Your task to perform on an android device: change the clock style Image 0: 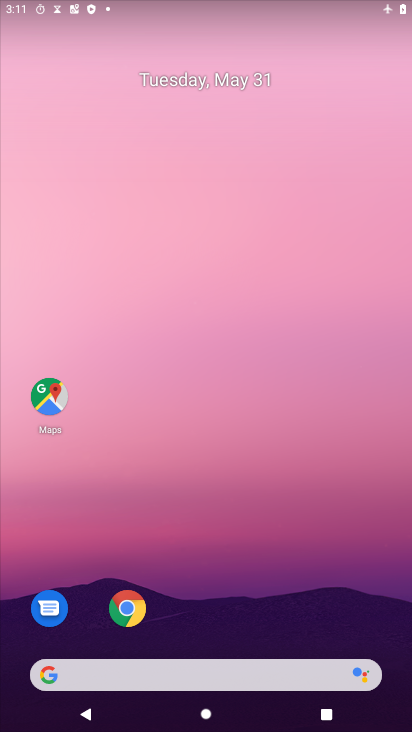
Step 0: drag from (185, 610) to (305, 152)
Your task to perform on an android device: change the clock style Image 1: 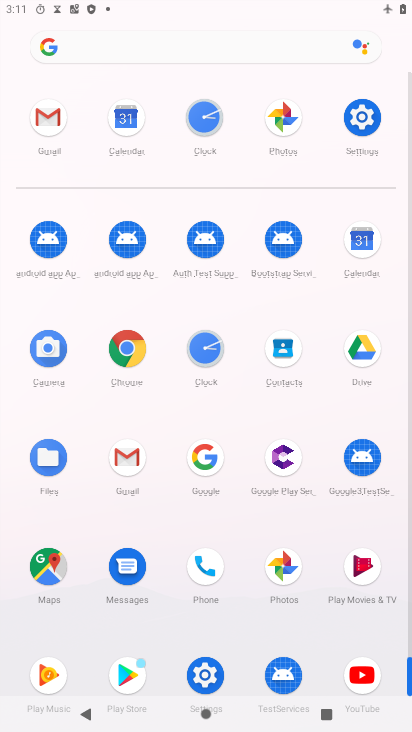
Step 1: click (205, 354)
Your task to perform on an android device: change the clock style Image 2: 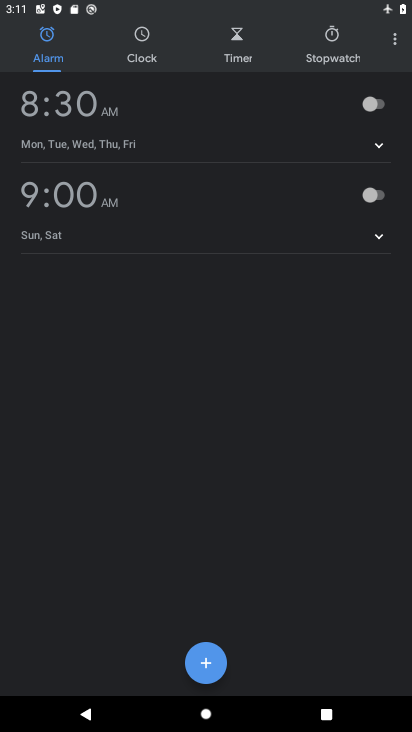
Step 2: click (390, 49)
Your task to perform on an android device: change the clock style Image 3: 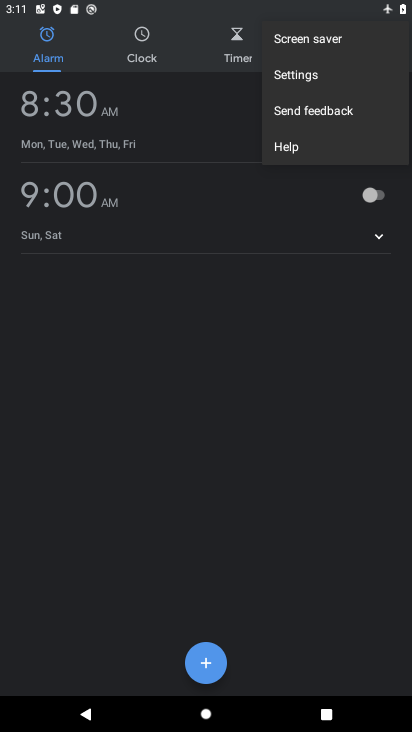
Step 3: click (321, 82)
Your task to perform on an android device: change the clock style Image 4: 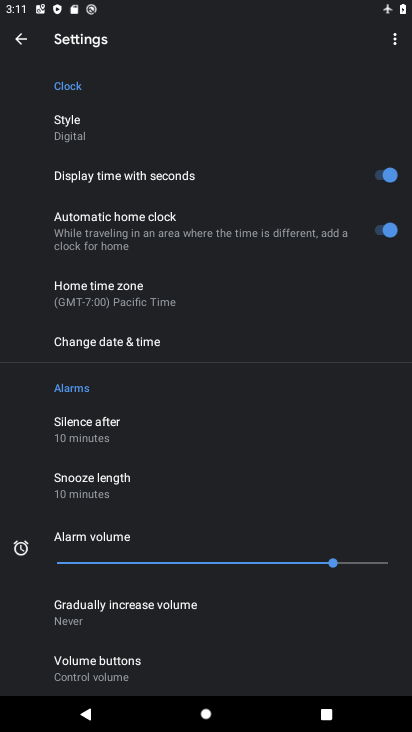
Step 4: click (311, 85)
Your task to perform on an android device: change the clock style Image 5: 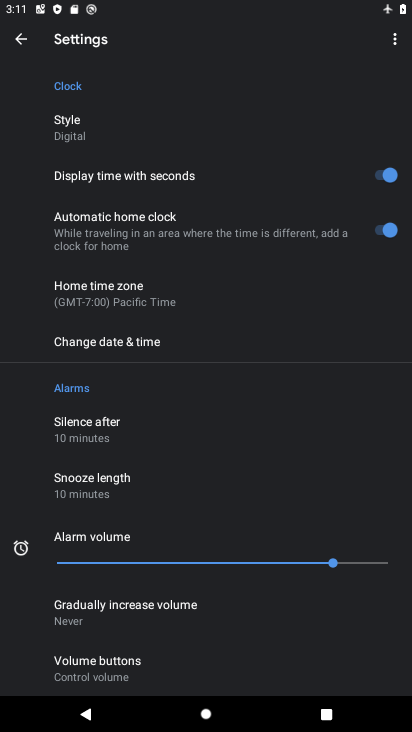
Step 5: click (97, 140)
Your task to perform on an android device: change the clock style Image 6: 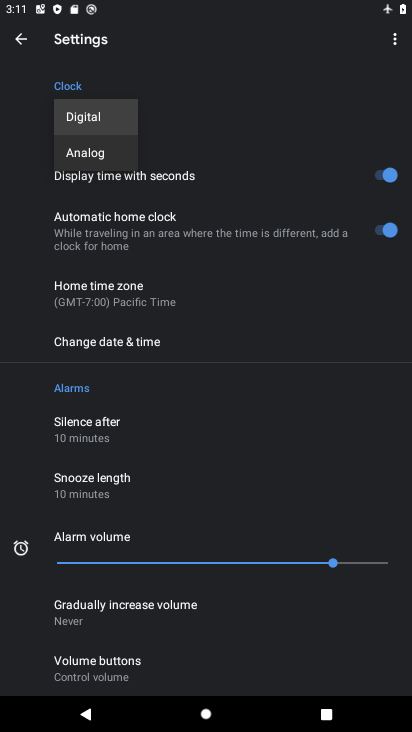
Step 6: click (96, 154)
Your task to perform on an android device: change the clock style Image 7: 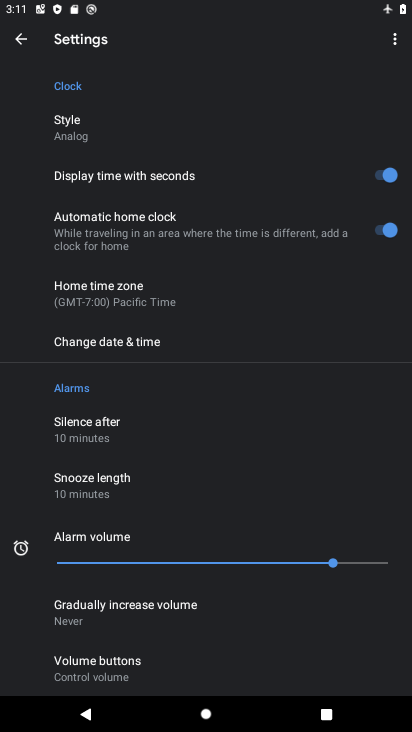
Step 7: task complete